Your task to perform on an android device: Search for sushi restaurants on Maps Image 0: 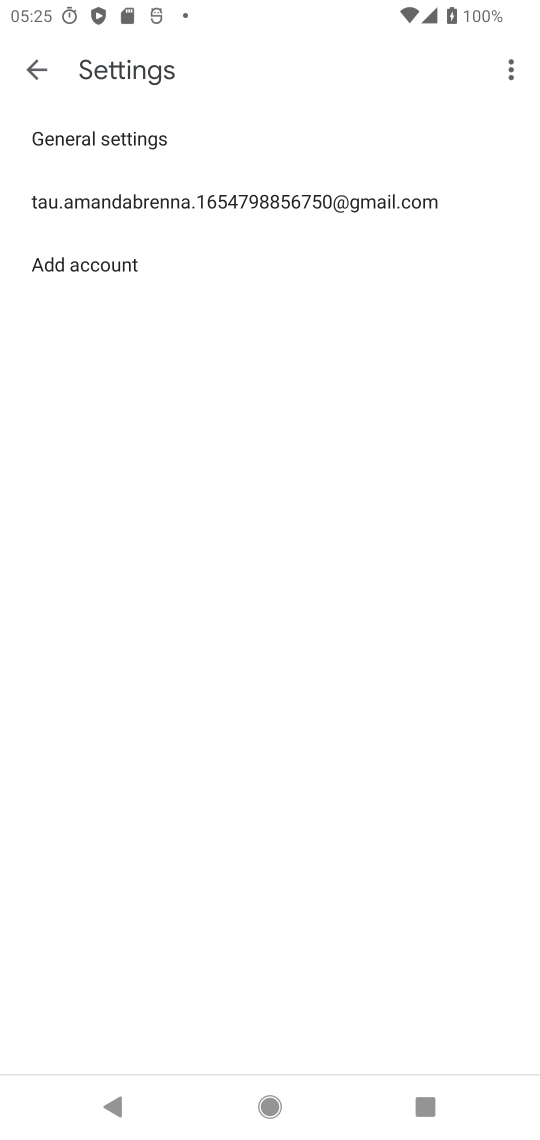
Step 0: press home button
Your task to perform on an android device: Search for sushi restaurants on Maps Image 1: 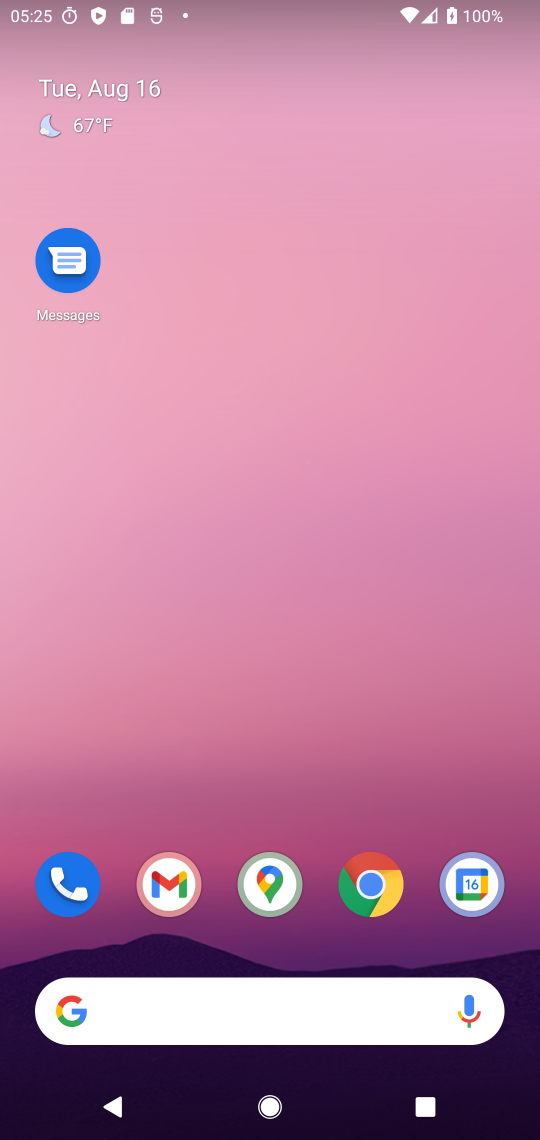
Step 1: click (267, 891)
Your task to perform on an android device: Search for sushi restaurants on Maps Image 2: 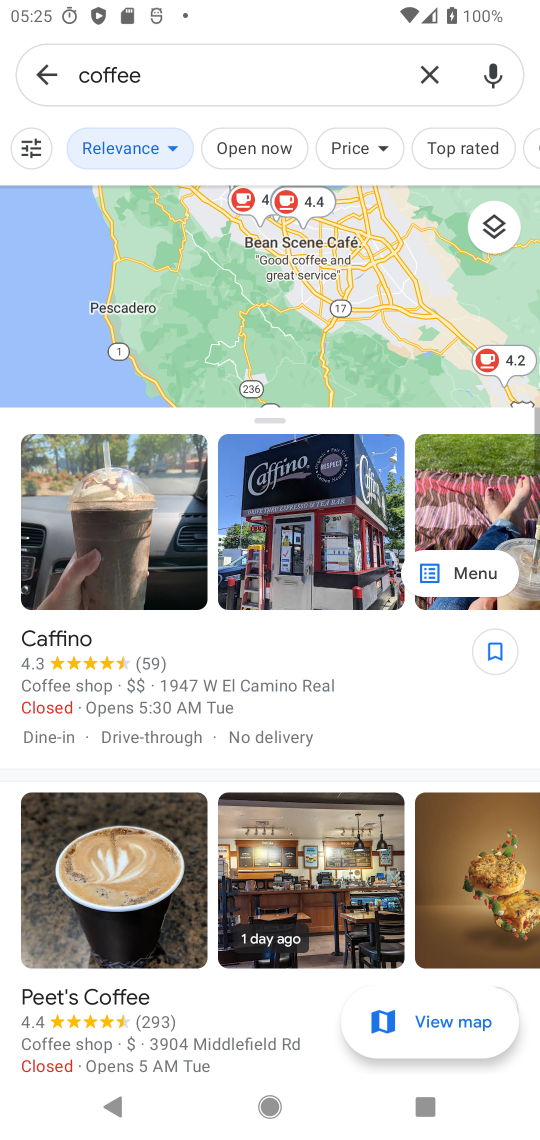
Step 2: click (41, 72)
Your task to perform on an android device: Search for sushi restaurants on Maps Image 3: 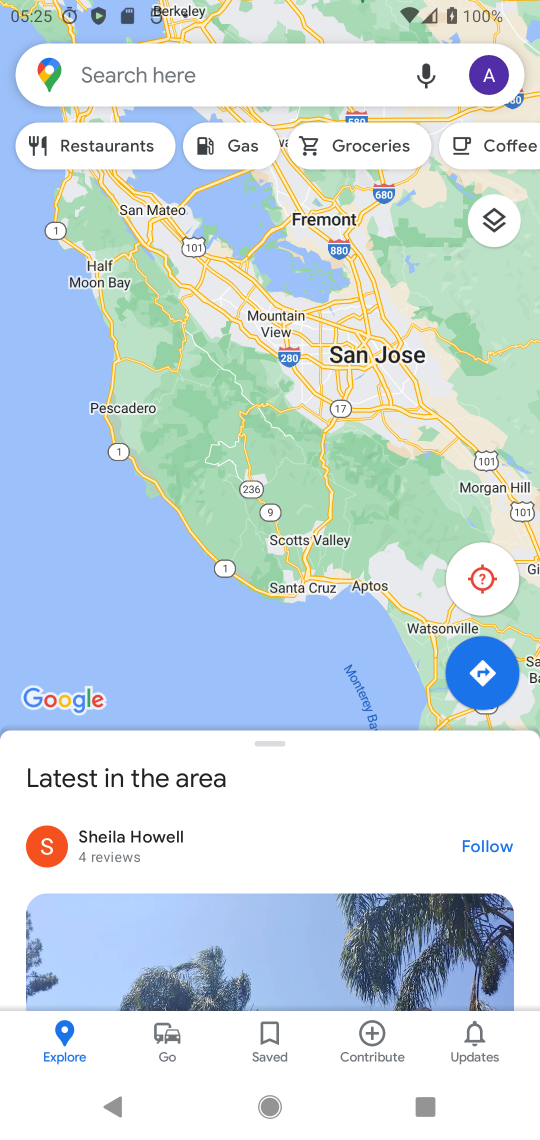
Step 3: click (141, 56)
Your task to perform on an android device: Search for sushi restaurants on Maps Image 4: 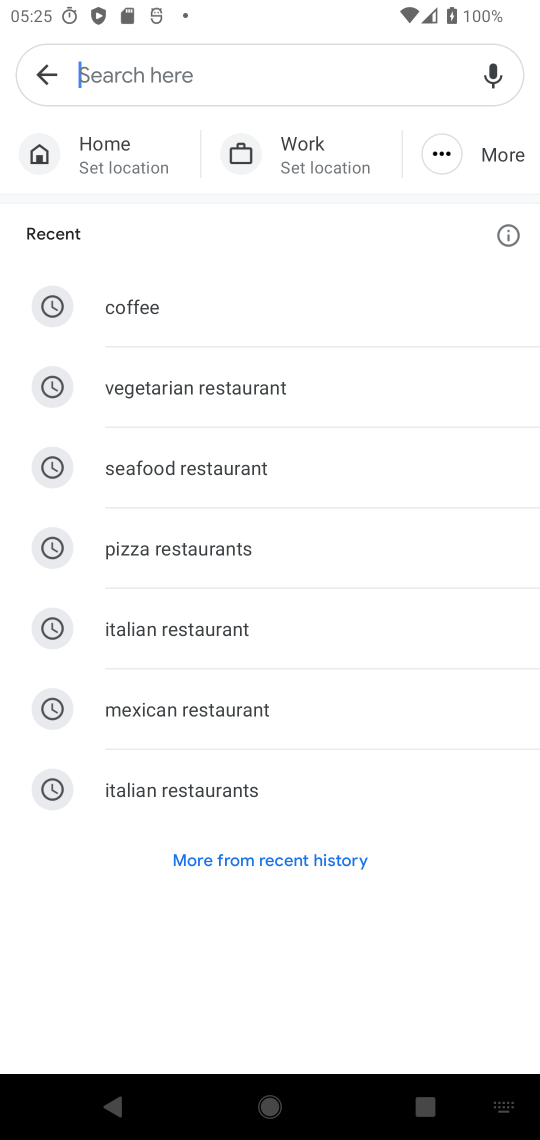
Step 4: type "sushi restaurants"
Your task to perform on an android device: Search for sushi restaurants on Maps Image 5: 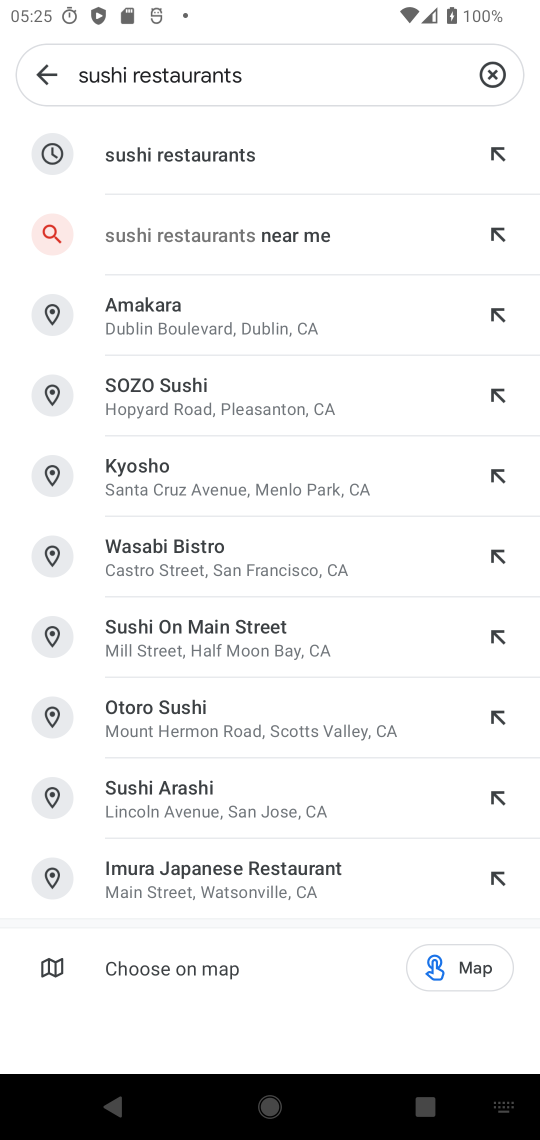
Step 5: click (235, 161)
Your task to perform on an android device: Search for sushi restaurants on Maps Image 6: 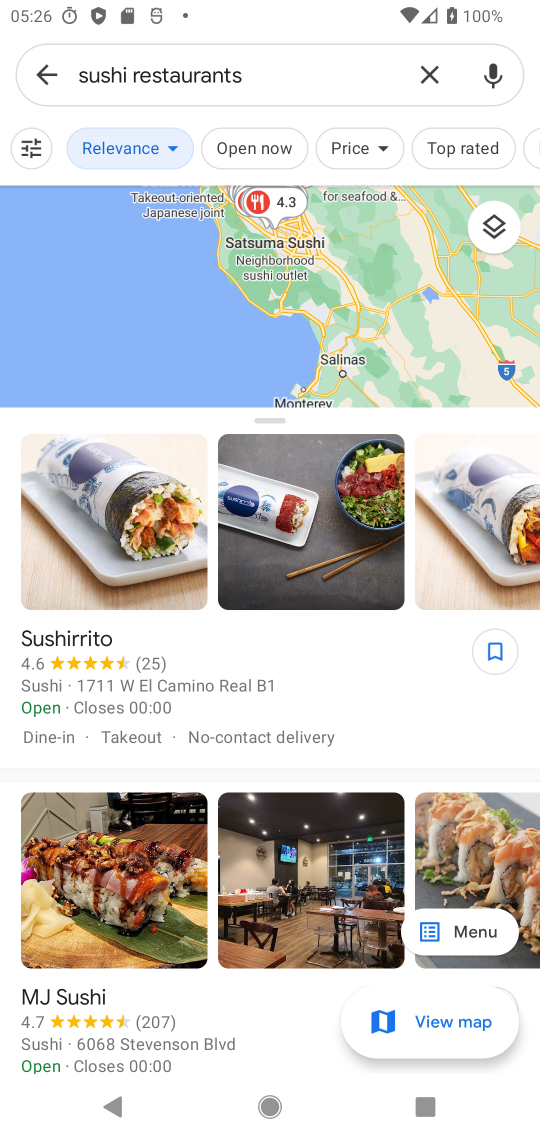
Step 6: task complete